Your task to perform on an android device: Open sound settings Image 0: 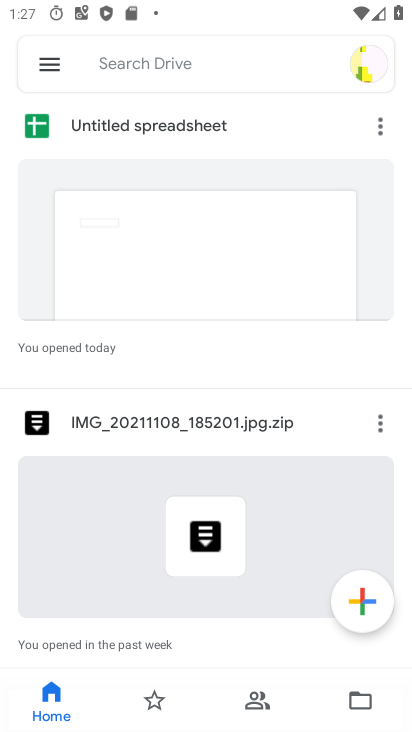
Step 0: press home button
Your task to perform on an android device: Open sound settings Image 1: 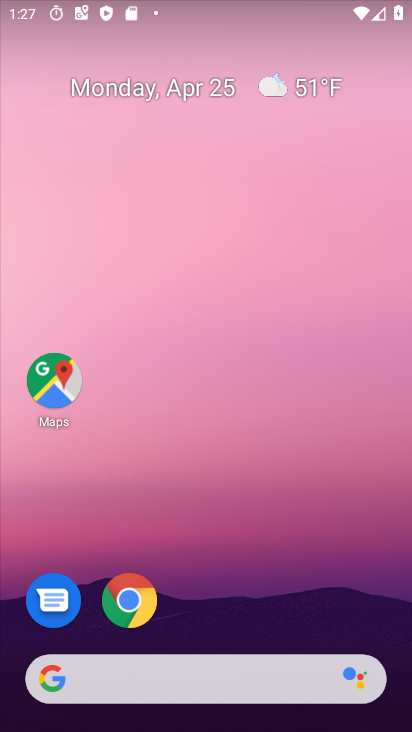
Step 1: drag from (133, 656) to (319, 109)
Your task to perform on an android device: Open sound settings Image 2: 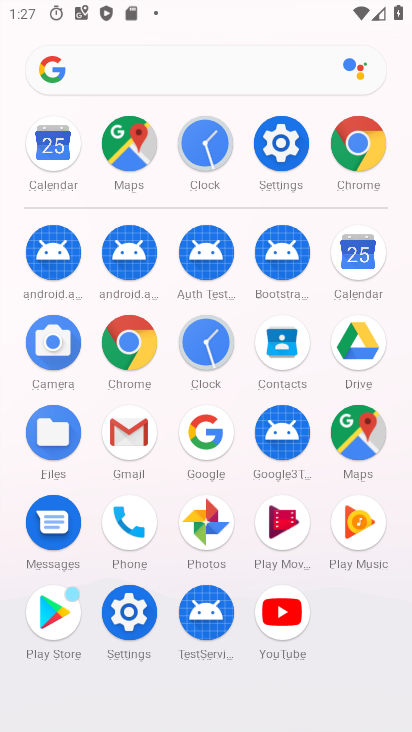
Step 2: click (291, 151)
Your task to perform on an android device: Open sound settings Image 3: 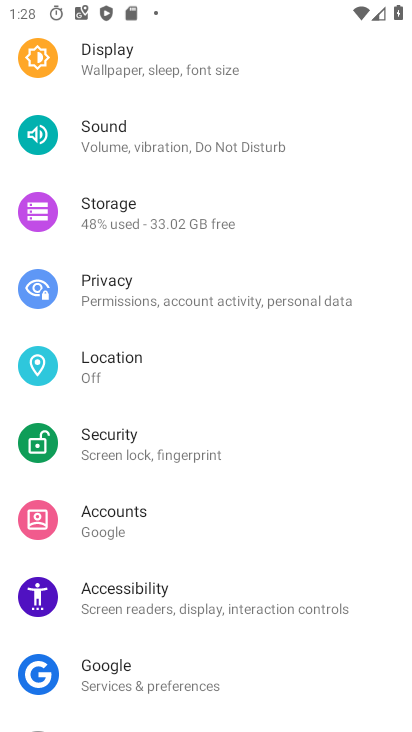
Step 3: click (158, 143)
Your task to perform on an android device: Open sound settings Image 4: 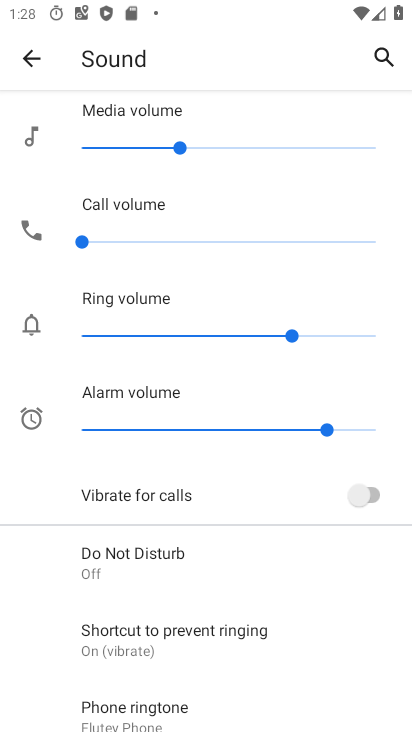
Step 4: task complete